Your task to perform on an android device: Open battery settings Image 0: 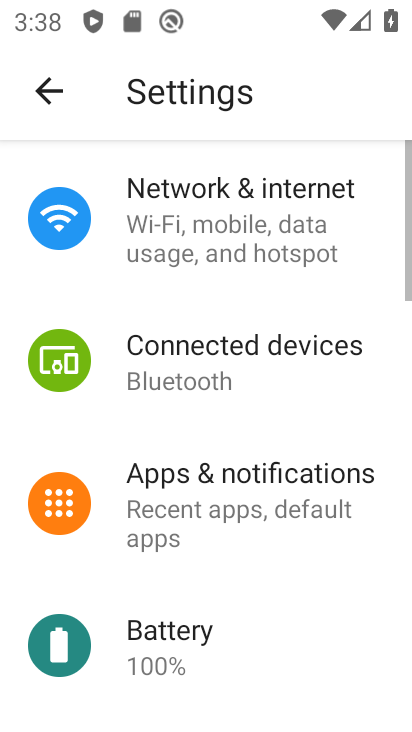
Step 0: press home button
Your task to perform on an android device: Open battery settings Image 1: 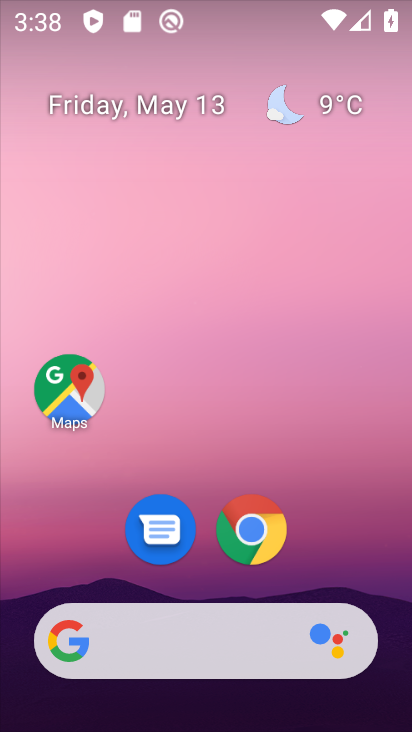
Step 1: drag from (204, 575) to (200, 73)
Your task to perform on an android device: Open battery settings Image 2: 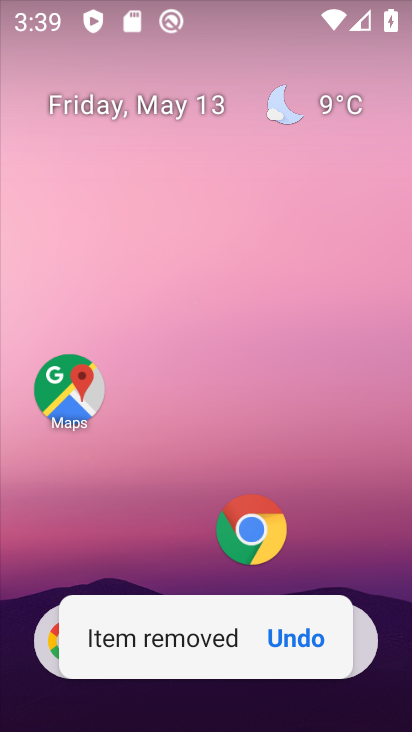
Step 2: drag from (164, 554) to (164, 50)
Your task to perform on an android device: Open battery settings Image 3: 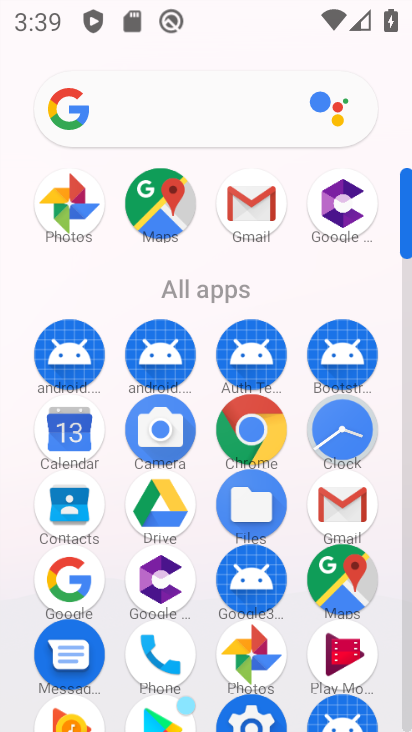
Step 3: click (253, 714)
Your task to perform on an android device: Open battery settings Image 4: 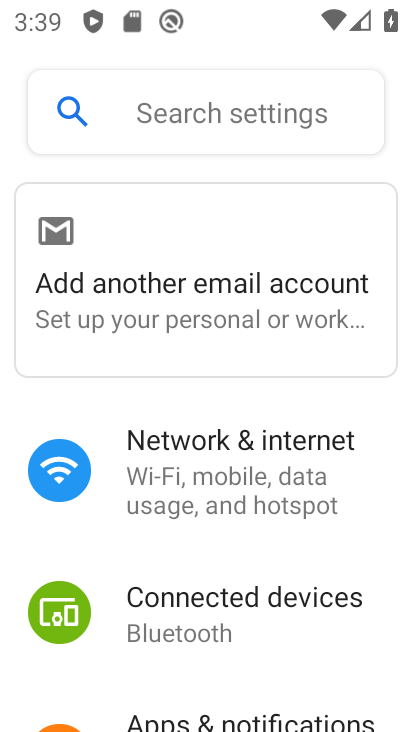
Step 4: drag from (224, 664) to (222, 189)
Your task to perform on an android device: Open battery settings Image 5: 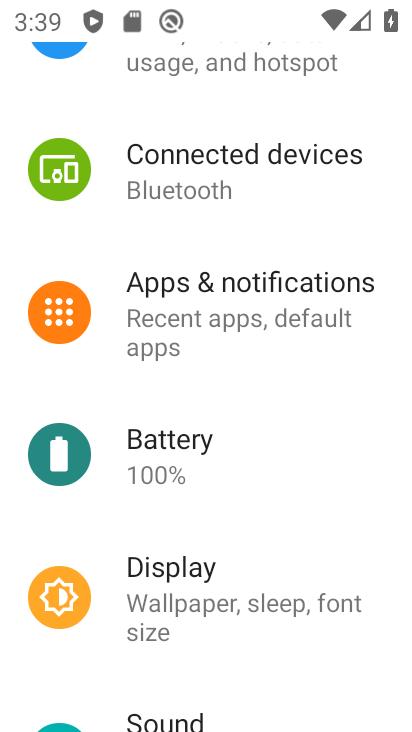
Step 5: click (213, 452)
Your task to perform on an android device: Open battery settings Image 6: 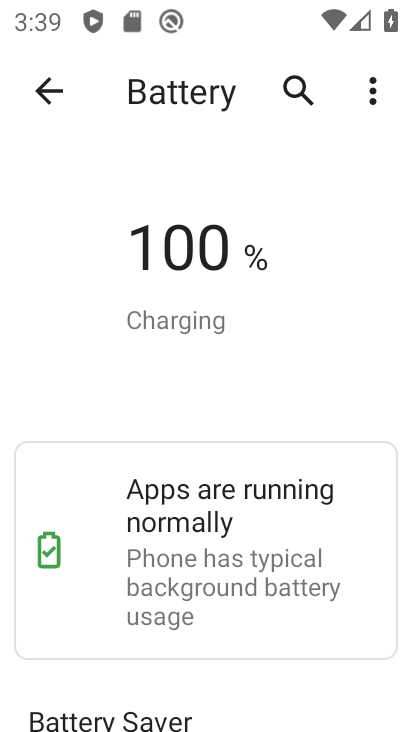
Step 6: task complete